Your task to perform on an android device: Go to Amazon Image 0: 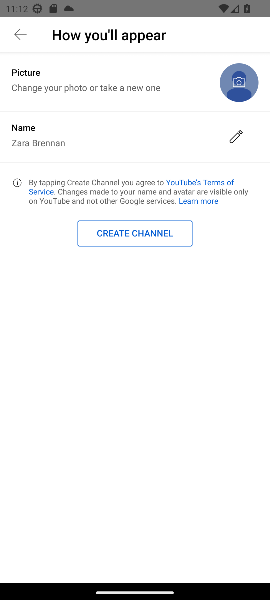
Step 0: press home button
Your task to perform on an android device: Go to Amazon Image 1: 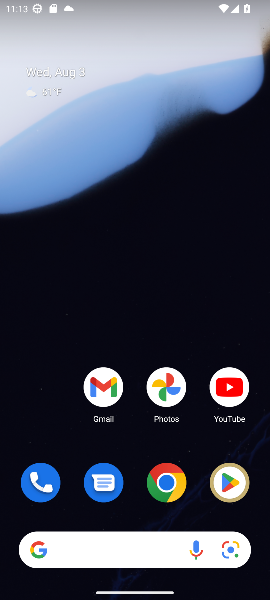
Step 1: click (154, 498)
Your task to perform on an android device: Go to Amazon Image 2: 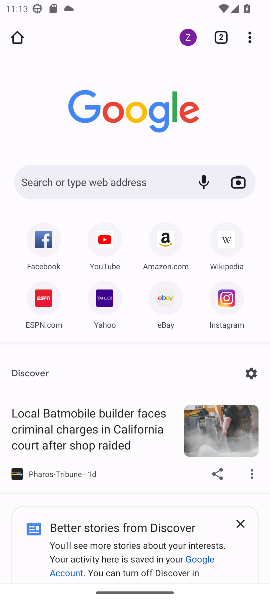
Step 2: click (164, 249)
Your task to perform on an android device: Go to Amazon Image 3: 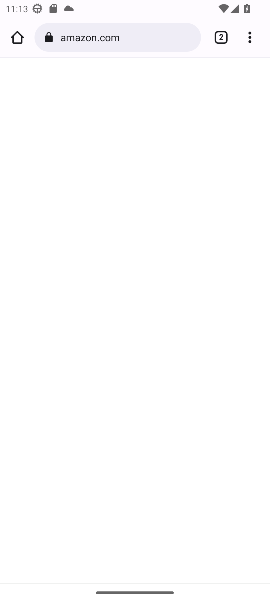
Step 3: task complete